Your task to perform on an android device: Open Google Chrome and click the shortcut for Amazon.com Image 0: 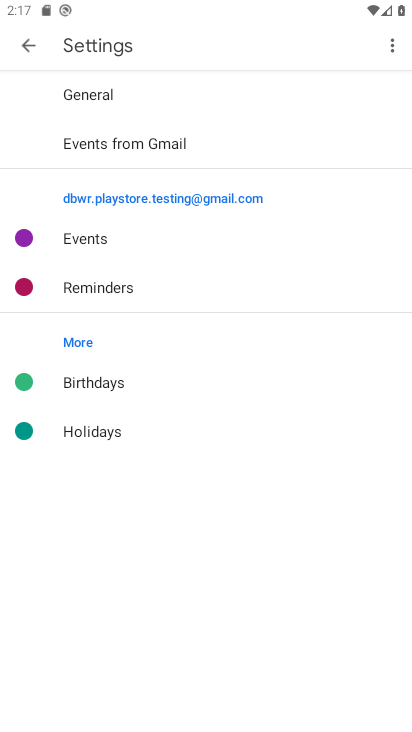
Step 0: press home button
Your task to perform on an android device: Open Google Chrome and click the shortcut for Amazon.com Image 1: 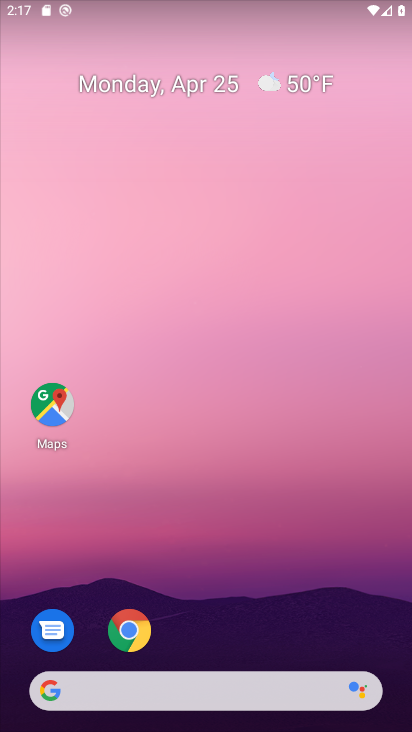
Step 1: click (131, 622)
Your task to perform on an android device: Open Google Chrome and click the shortcut for Amazon.com Image 2: 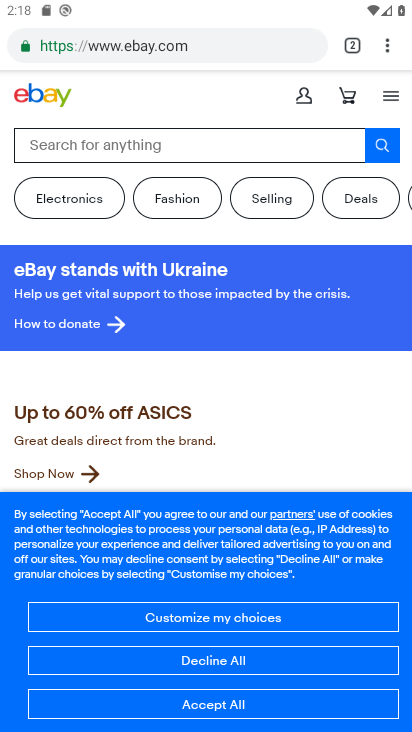
Step 2: click (184, 53)
Your task to perform on an android device: Open Google Chrome and click the shortcut for Amazon.com Image 3: 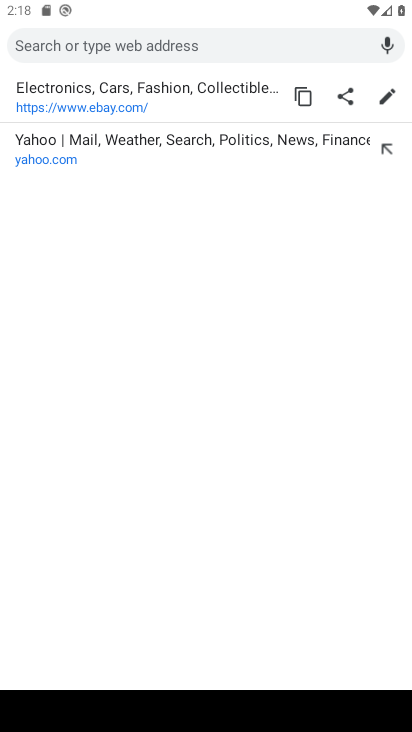
Step 3: click (353, 49)
Your task to perform on an android device: Open Google Chrome and click the shortcut for Amazon.com Image 4: 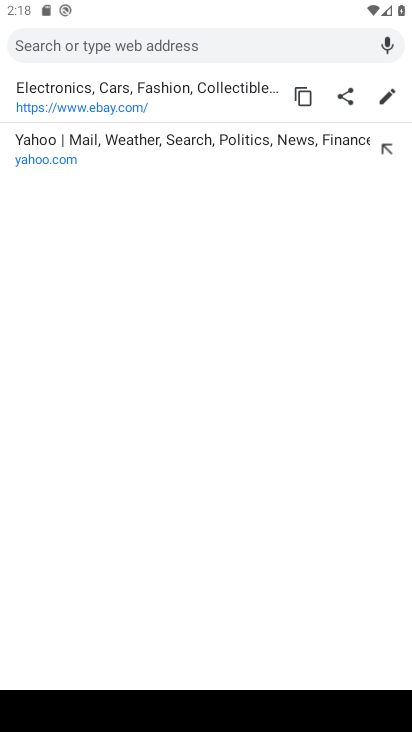
Step 4: press back button
Your task to perform on an android device: Open Google Chrome and click the shortcut for Amazon.com Image 5: 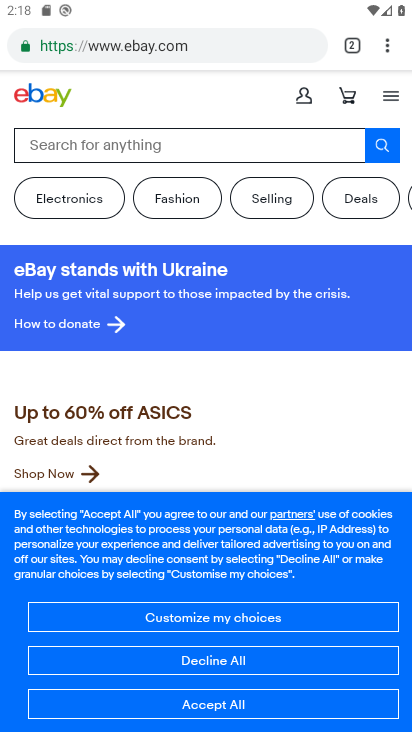
Step 5: click (381, 48)
Your task to perform on an android device: Open Google Chrome and click the shortcut for Amazon.com Image 6: 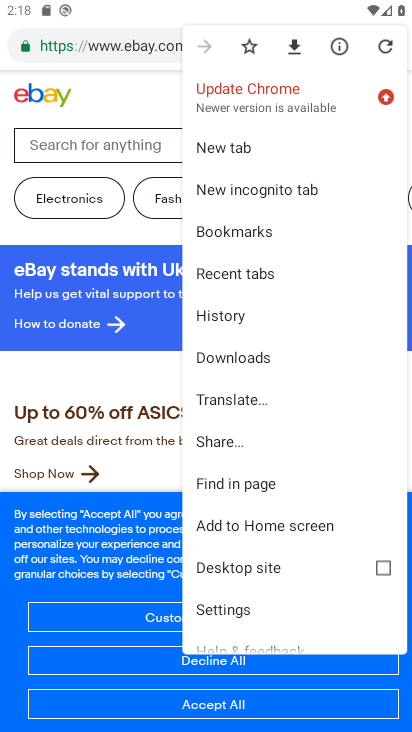
Step 6: click (231, 150)
Your task to perform on an android device: Open Google Chrome and click the shortcut for Amazon.com Image 7: 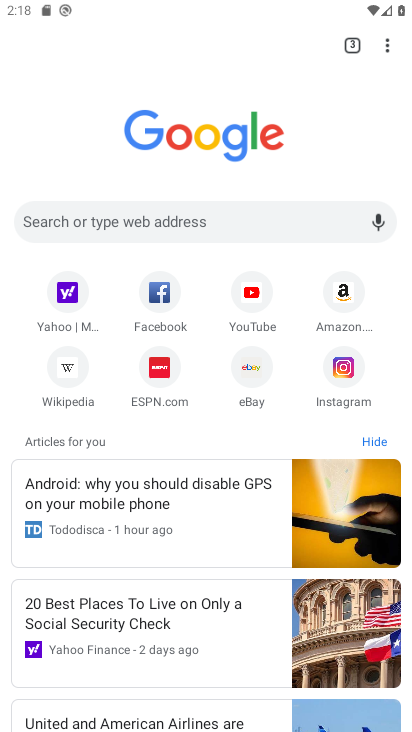
Step 7: click (340, 301)
Your task to perform on an android device: Open Google Chrome and click the shortcut for Amazon.com Image 8: 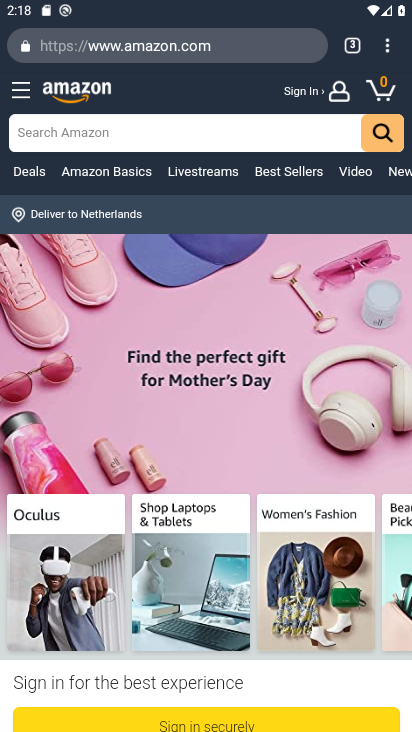
Step 8: task complete